Your task to perform on an android device: Go to Wikipedia Image 0: 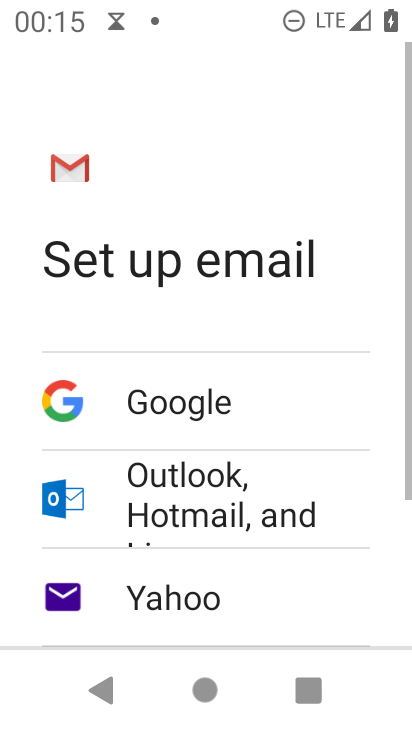
Step 0: press home button
Your task to perform on an android device: Go to Wikipedia Image 1: 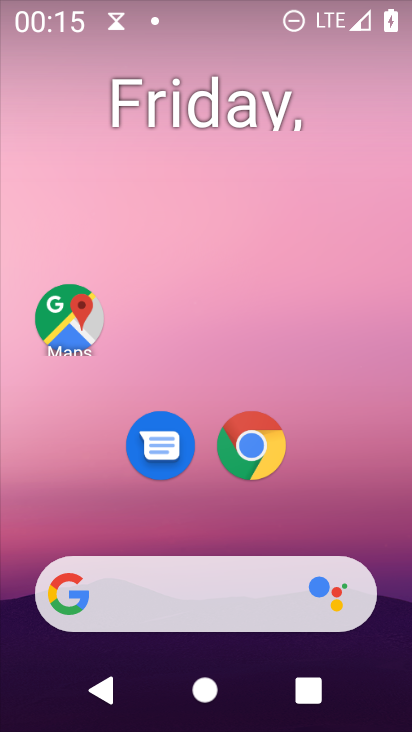
Step 1: click (256, 452)
Your task to perform on an android device: Go to Wikipedia Image 2: 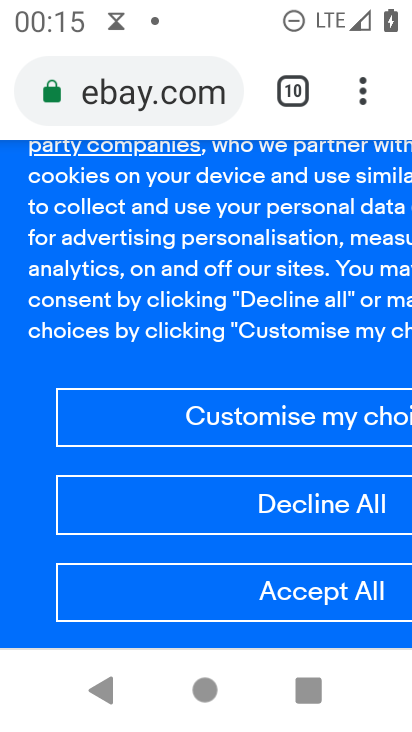
Step 2: click (362, 101)
Your task to perform on an android device: Go to Wikipedia Image 3: 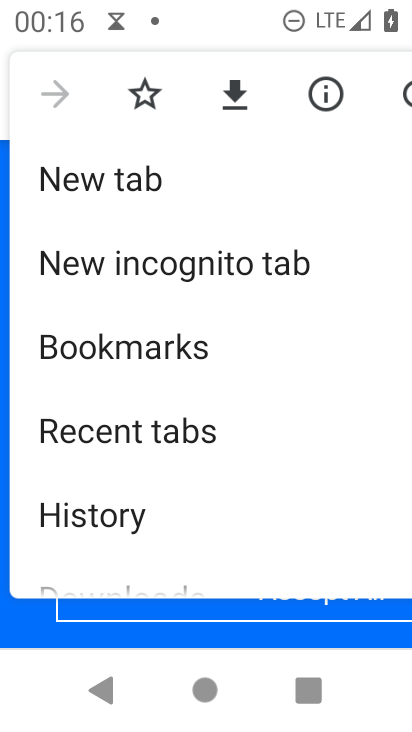
Step 3: click (115, 180)
Your task to perform on an android device: Go to Wikipedia Image 4: 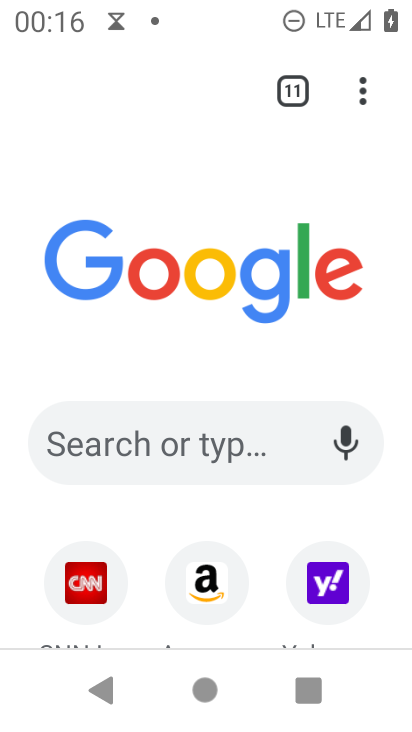
Step 4: drag from (273, 628) to (294, 405)
Your task to perform on an android device: Go to Wikipedia Image 5: 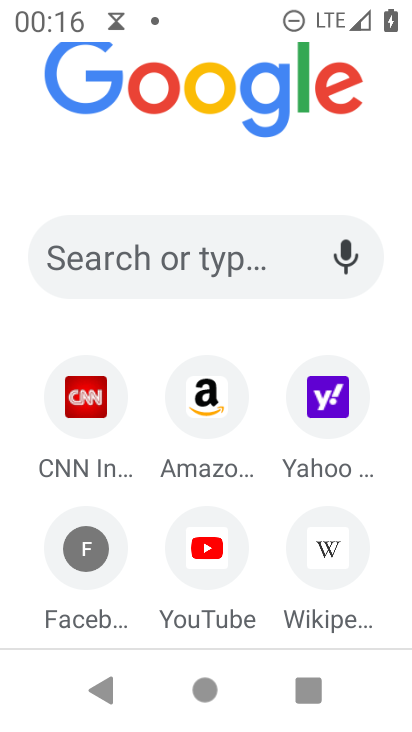
Step 5: click (336, 537)
Your task to perform on an android device: Go to Wikipedia Image 6: 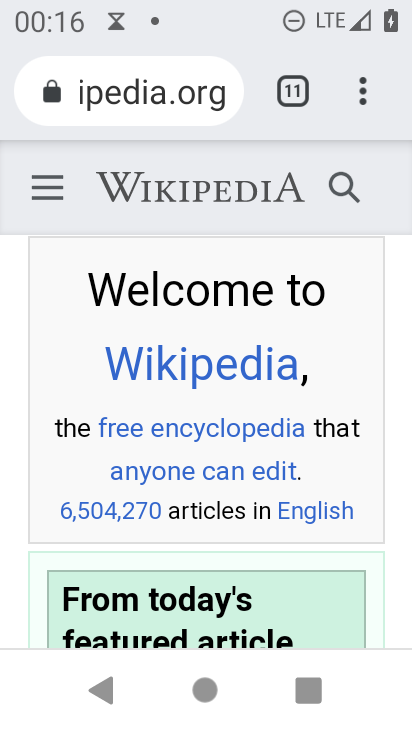
Step 6: task complete